Your task to perform on an android device: see creations saved in the google photos Image 0: 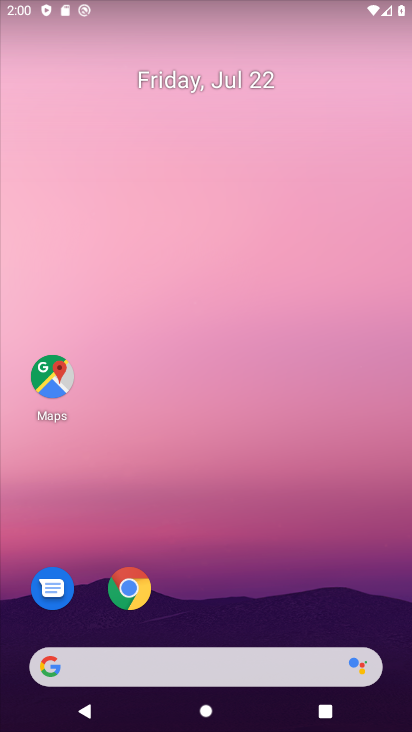
Step 0: drag from (194, 635) to (172, 194)
Your task to perform on an android device: see creations saved in the google photos Image 1: 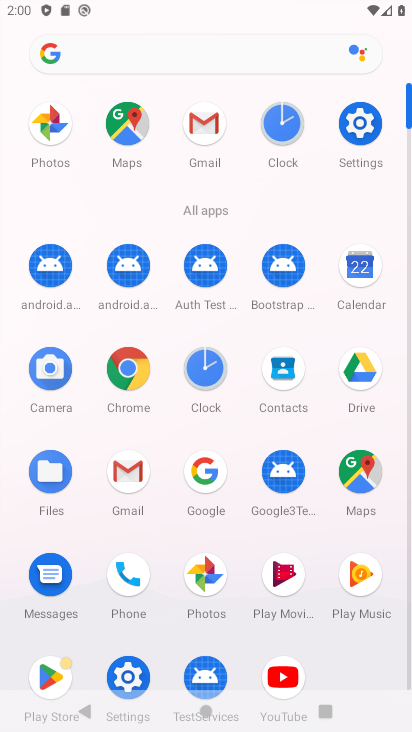
Step 1: drag from (171, 119) to (170, 15)
Your task to perform on an android device: see creations saved in the google photos Image 2: 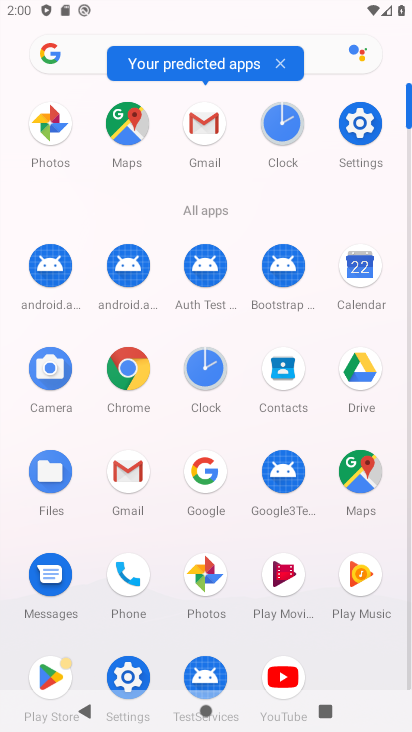
Step 2: click (197, 565)
Your task to perform on an android device: see creations saved in the google photos Image 3: 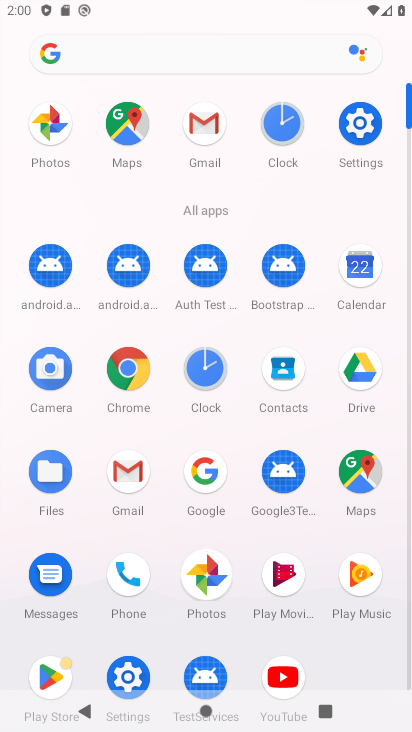
Step 3: click (191, 568)
Your task to perform on an android device: see creations saved in the google photos Image 4: 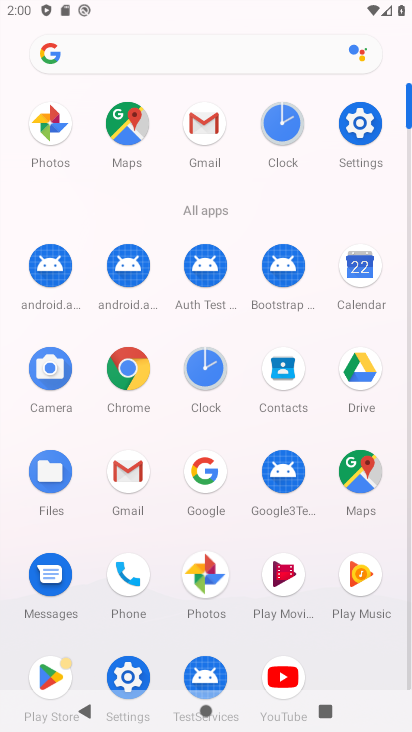
Step 4: click (188, 557)
Your task to perform on an android device: see creations saved in the google photos Image 5: 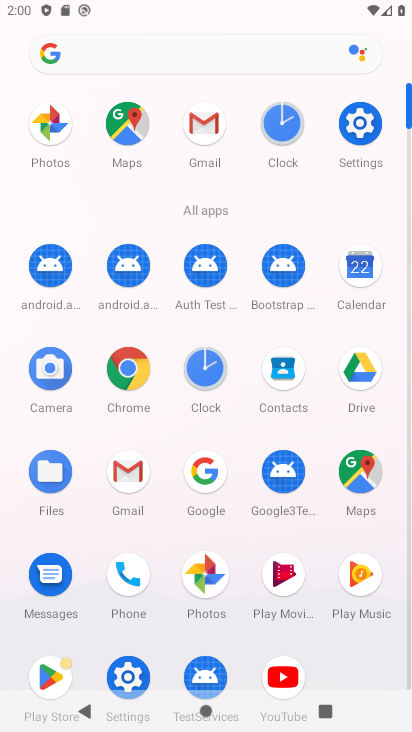
Step 5: click (188, 557)
Your task to perform on an android device: see creations saved in the google photos Image 6: 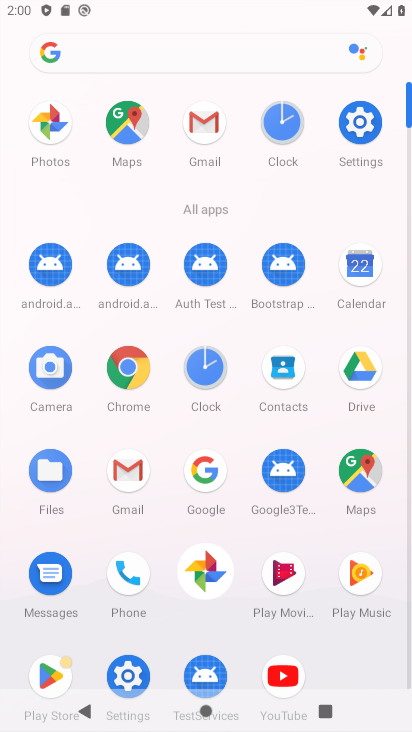
Step 6: click (188, 557)
Your task to perform on an android device: see creations saved in the google photos Image 7: 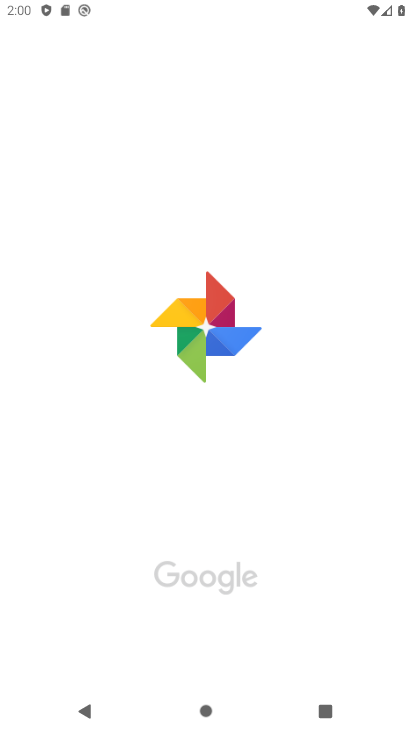
Step 7: click (188, 557)
Your task to perform on an android device: see creations saved in the google photos Image 8: 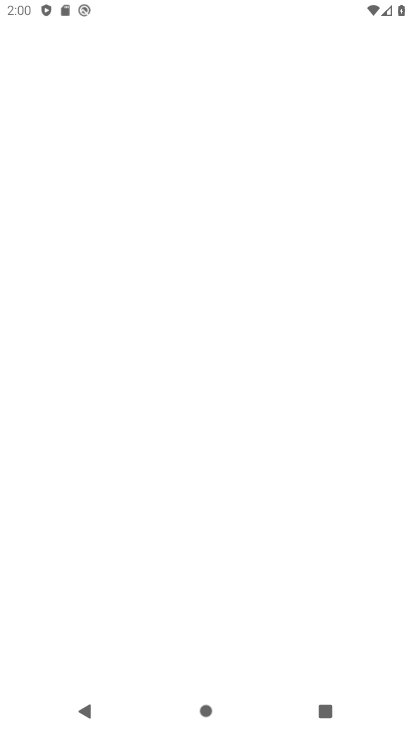
Step 8: click (188, 557)
Your task to perform on an android device: see creations saved in the google photos Image 9: 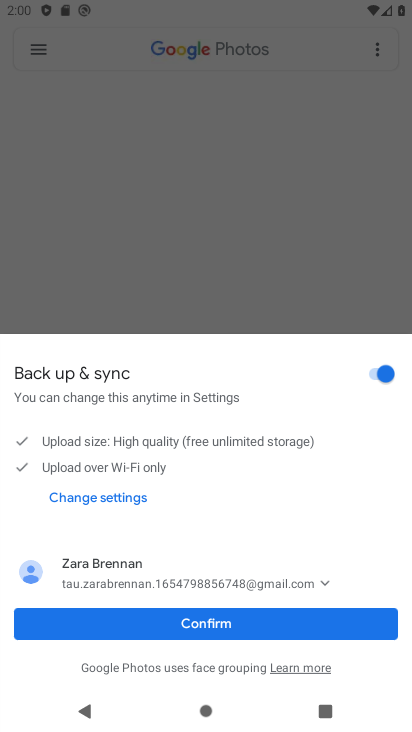
Step 9: click (213, 170)
Your task to perform on an android device: see creations saved in the google photos Image 10: 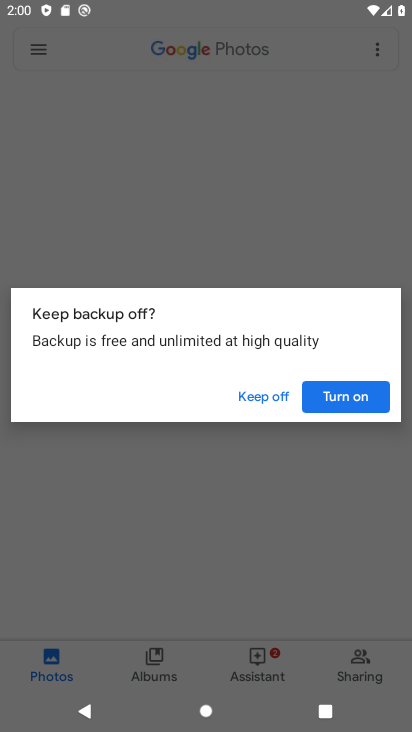
Step 10: click (259, 390)
Your task to perform on an android device: see creations saved in the google photos Image 11: 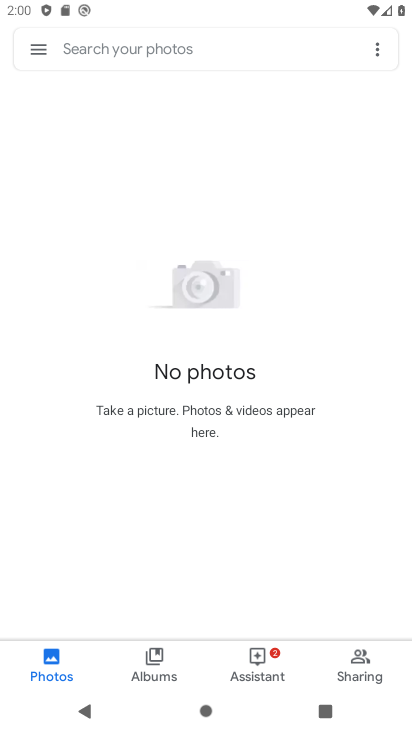
Step 11: task complete